Your task to perform on an android device: Go to privacy settings Image 0: 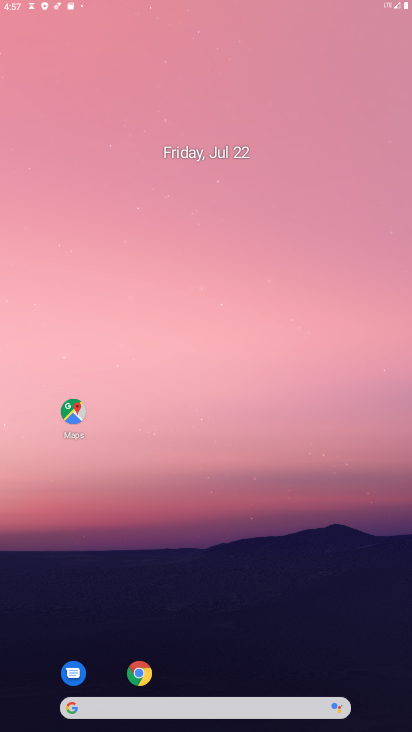
Step 0: press home button
Your task to perform on an android device: Go to privacy settings Image 1: 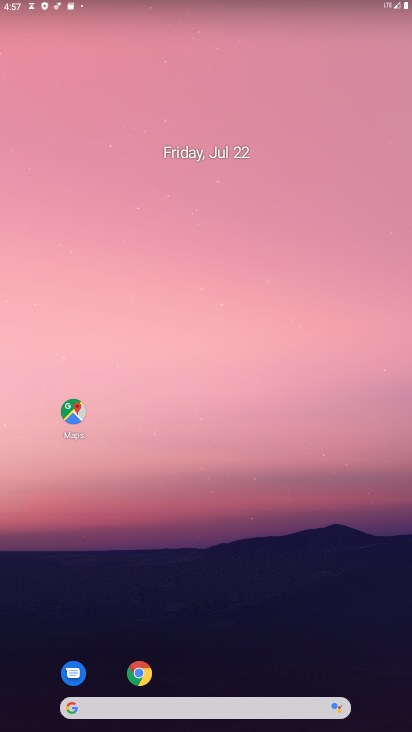
Step 1: drag from (266, 655) to (258, 8)
Your task to perform on an android device: Go to privacy settings Image 2: 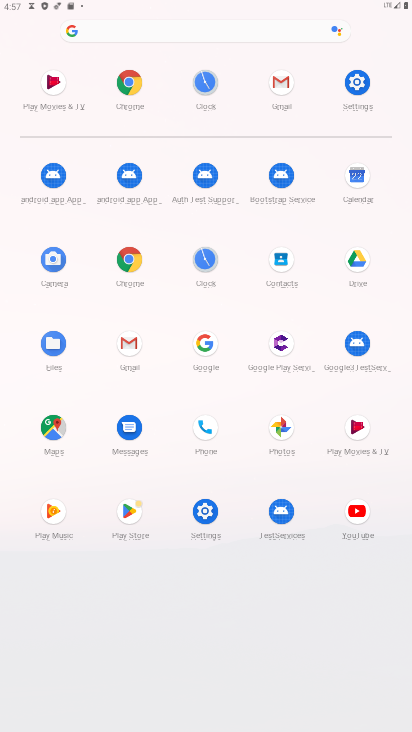
Step 2: click (361, 75)
Your task to perform on an android device: Go to privacy settings Image 3: 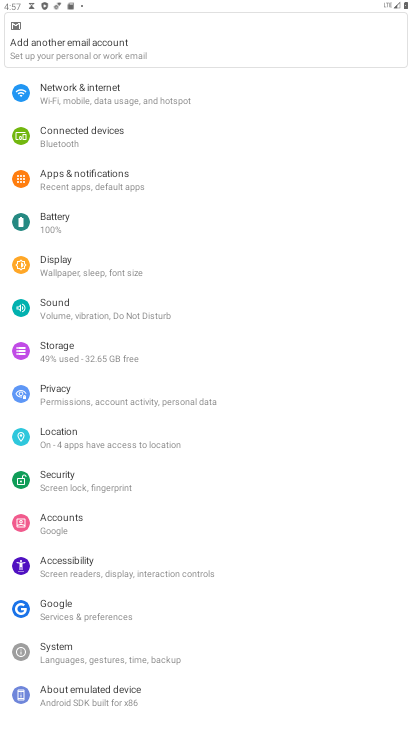
Step 3: click (48, 393)
Your task to perform on an android device: Go to privacy settings Image 4: 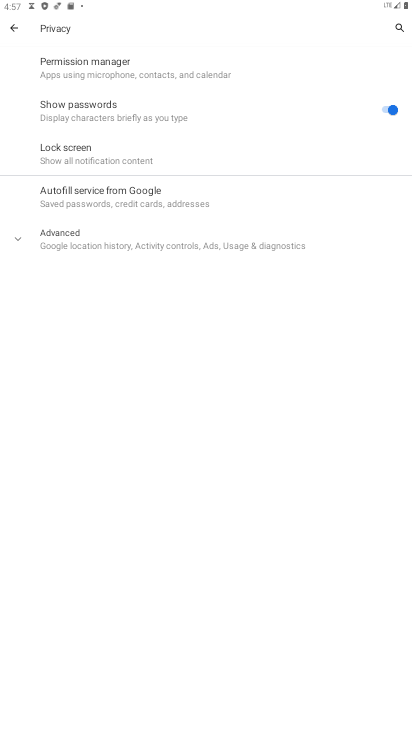
Step 4: task complete